Your task to perform on an android device: turn on location history Image 0: 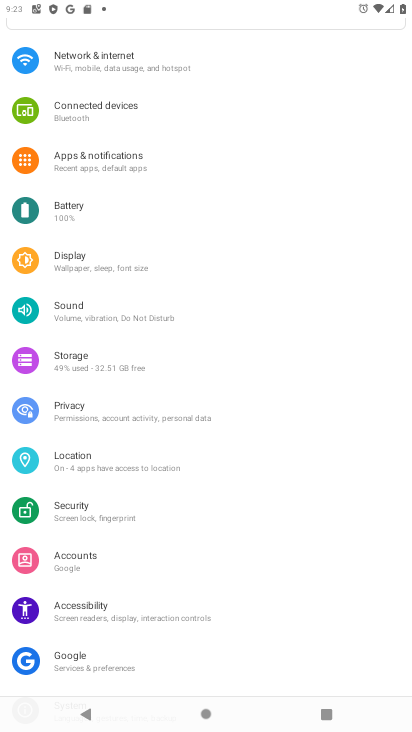
Step 0: press home button
Your task to perform on an android device: turn on location history Image 1: 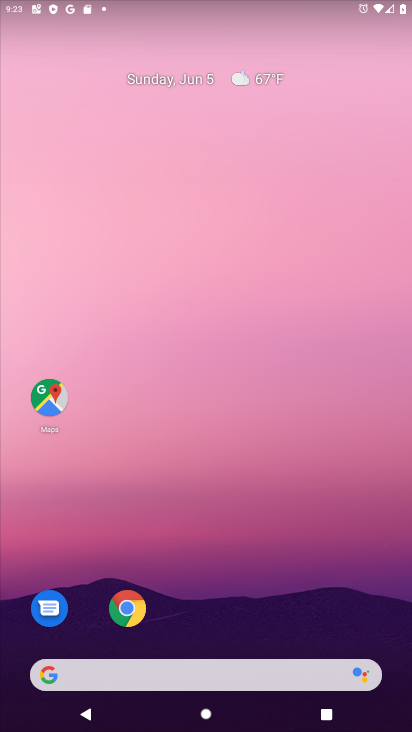
Step 1: drag from (37, 538) to (265, 92)
Your task to perform on an android device: turn on location history Image 2: 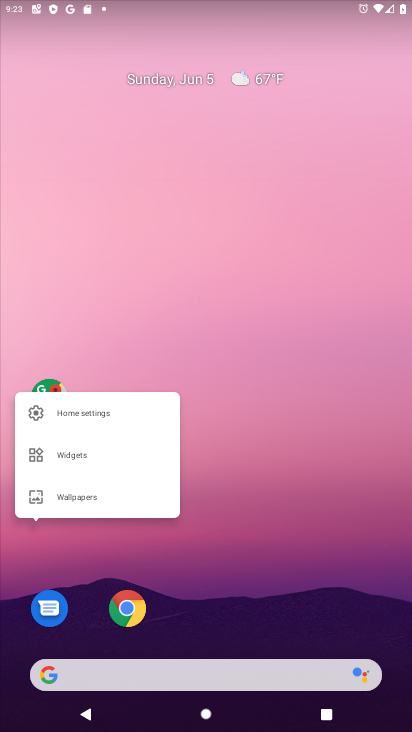
Step 2: drag from (26, 657) to (393, 188)
Your task to perform on an android device: turn on location history Image 3: 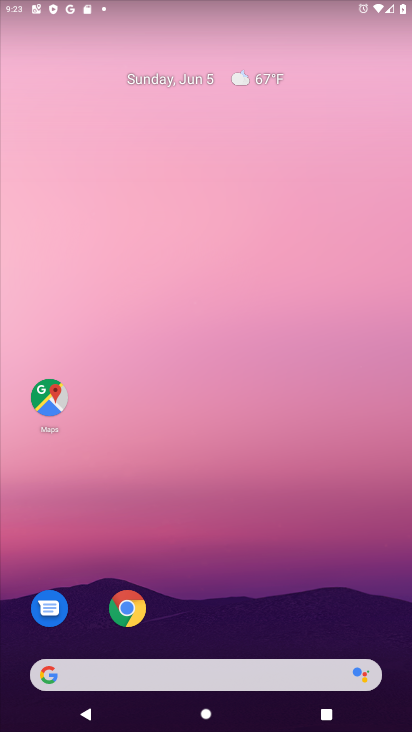
Step 3: drag from (118, 445) to (297, 92)
Your task to perform on an android device: turn on location history Image 4: 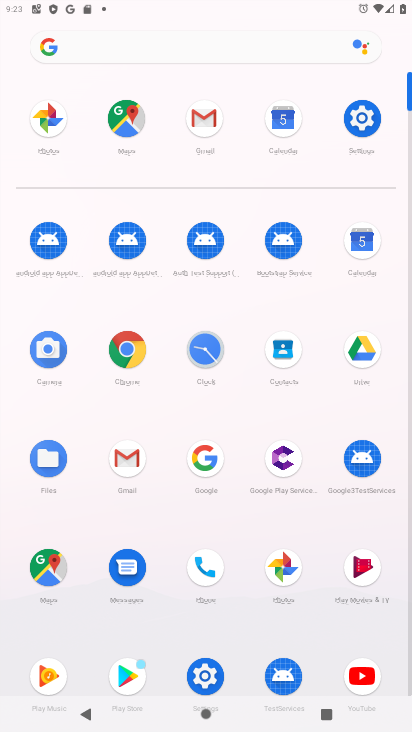
Step 4: click (364, 122)
Your task to perform on an android device: turn on location history Image 5: 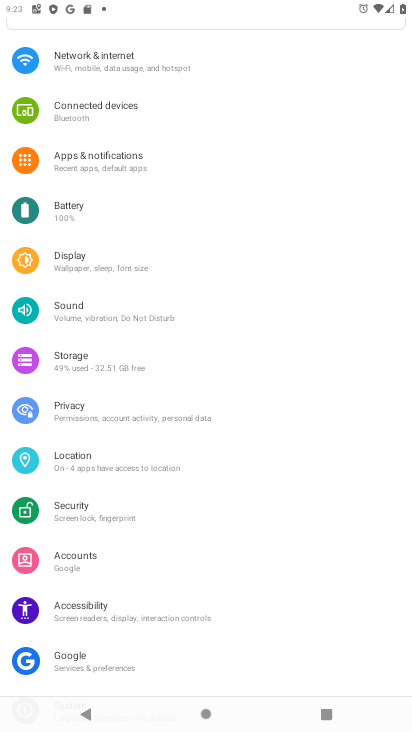
Step 5: click (64, 469)
Your task to perform on an android device: turn on location history Image 6: 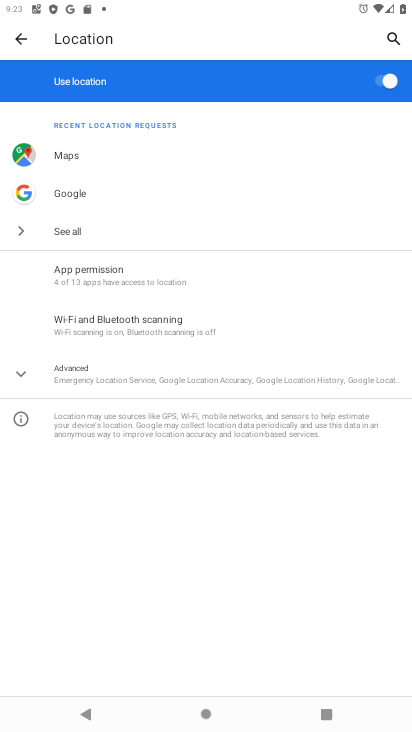
Step 6: click (167, 378)
Your task to perform on an android device: turn on location history Image 7: 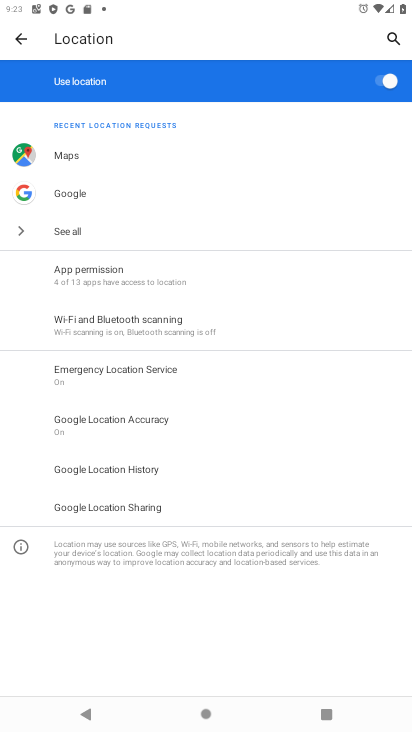
Step 7: click (132, 469)
Your task to perform on an android device: turn on location history Image 8: 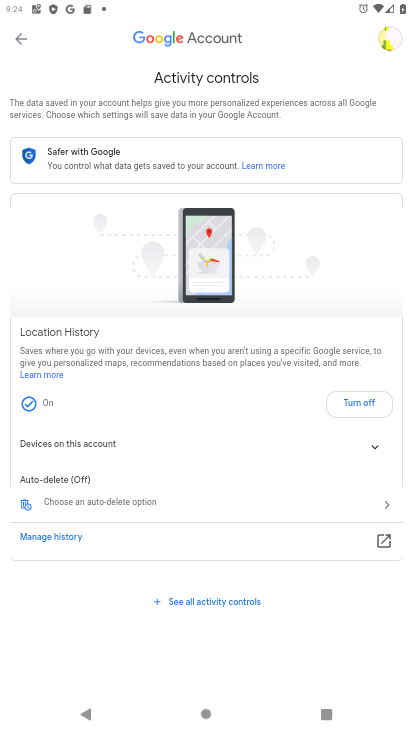
Step 8: task complete